Your task to perform on an android device: open the mobile data screen to see how much data has been used Image 0: 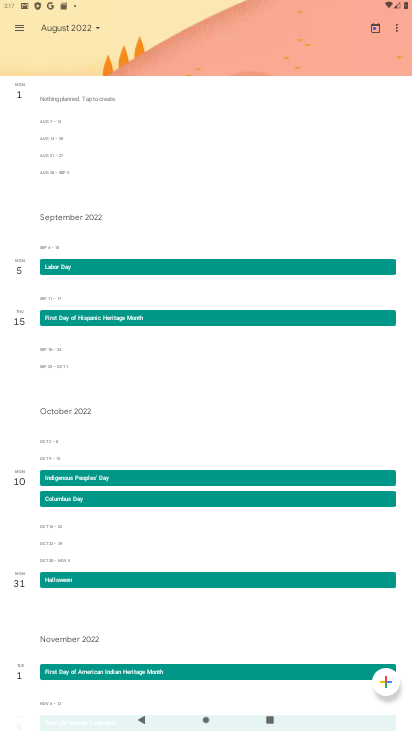
Step 0: press home button
Your task to perform on an android device: open the mobile data screen to see how much data has been used Image 1: 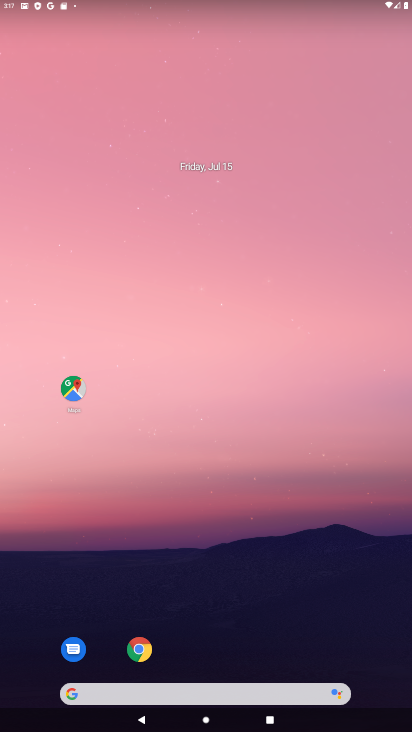
Step 1: drag from (189, 661) to (184, 257)
Your task to perform on an android device: open the mobile data screen to see how much data has been used Image 2: 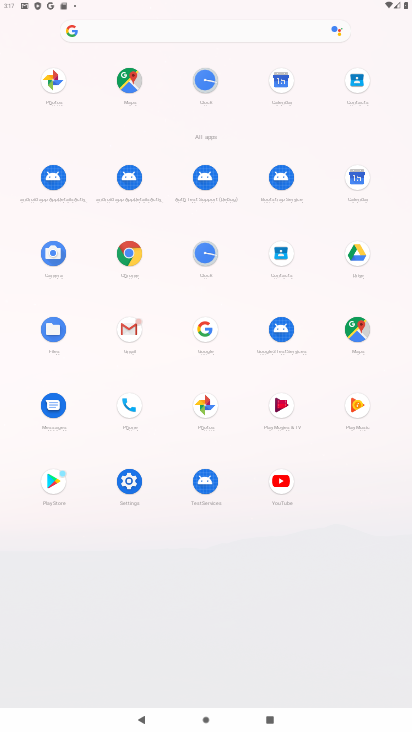
Step 2: click (124, 478)
Your task to perform on an android device: open the mobile data screen to see how much data has been used Image 3: 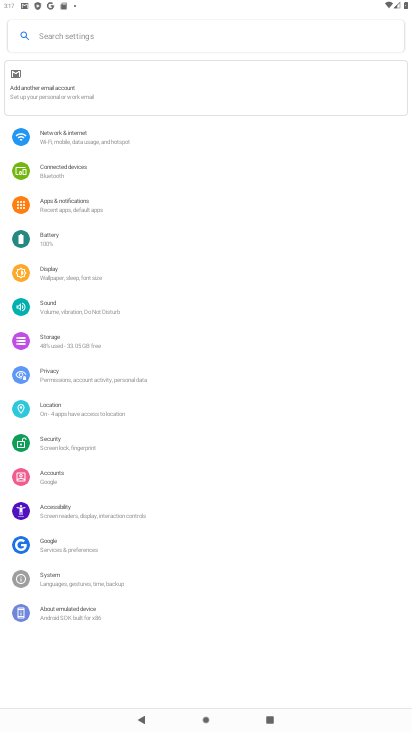
Step 3: click (108, 133)
Your task to perform on an android device: open the mobile data screen to see how much data has been used Image 4: 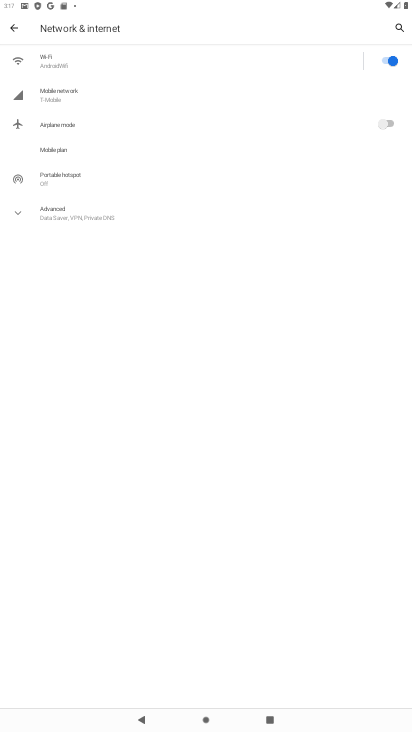
Step 4: click (86, 103)
Your task to perform on an android device: open the mobile data screen to see how much data has been used Image 5: 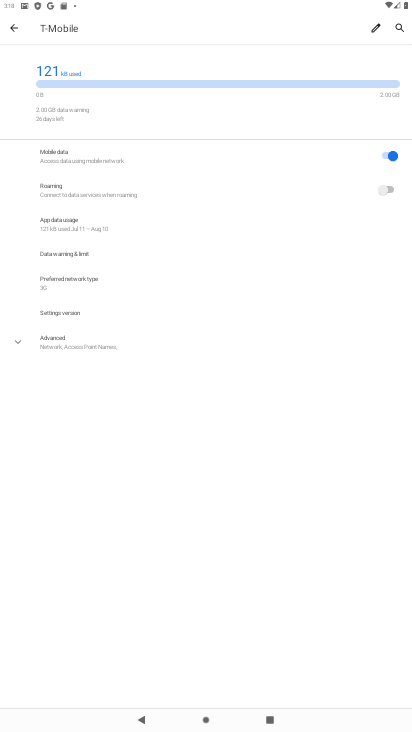
Step 5: click (63, 232)
Your task to perform on an android device: open the mobile data screen to see how much data has been used Image 6: 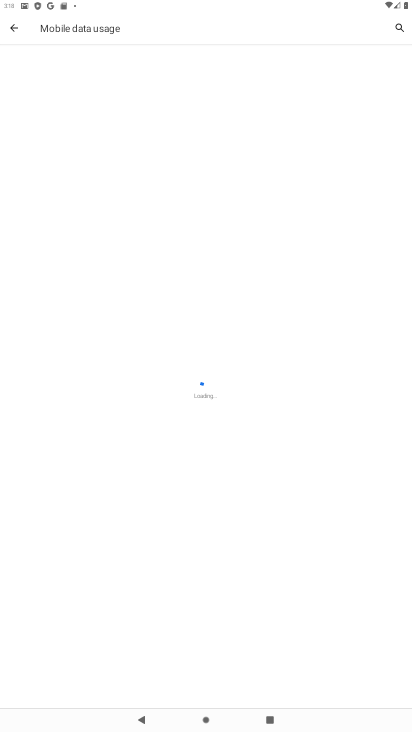
Step 6: task complete